Your task to perform on an android device: Open Reddit.com Image 0: 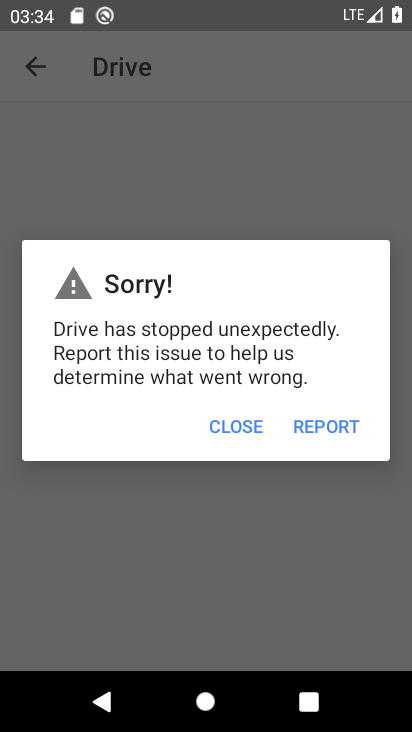
Step 0: press home button
Your task to perform on an android device: Open Reddit.com Image 1: 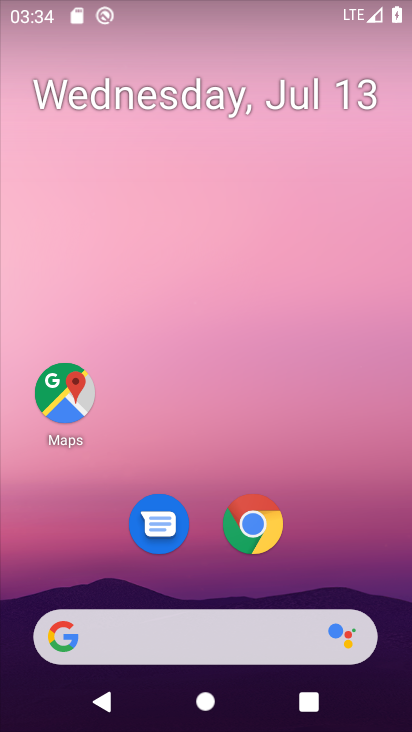
Step 1: click (211, 648)
Your task to perform on an android device: Open Reddit.com Image 2: 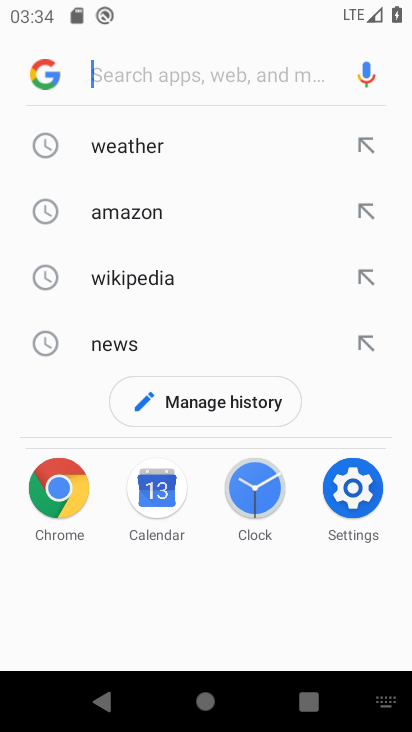
Step 2: type "reddit.com"
Your task to perform on an android device: Open Reddit.com Image 3: 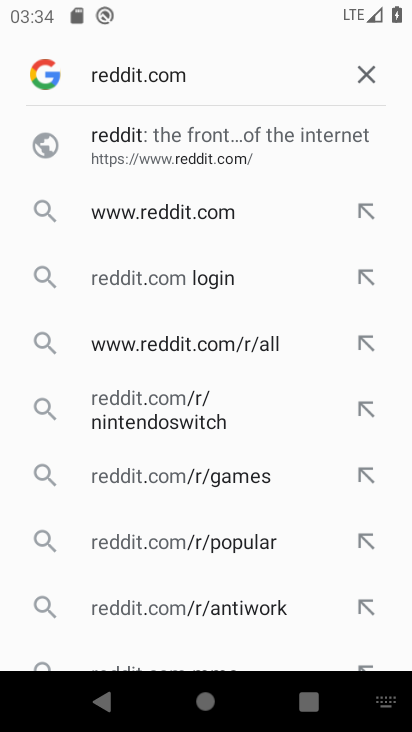
Step 3: click (112, 149)
Your task to perform on an android device: Open Reddit.com Image 4: 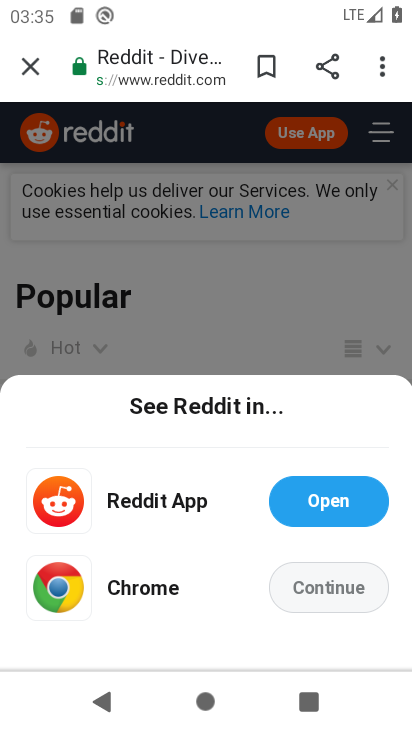
Step 4: click (331, 578)
Your task to perform on an android device: Open Reddit.com Image 5: 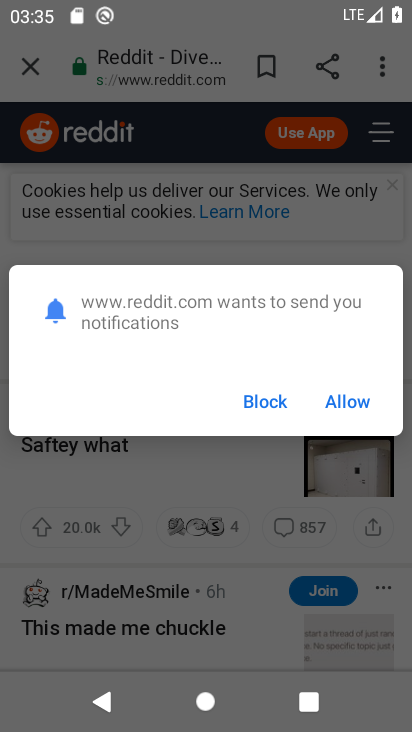
Step 5: click (260, 402)
Your task to perform on an android device: Open Reddit.com Image 6: 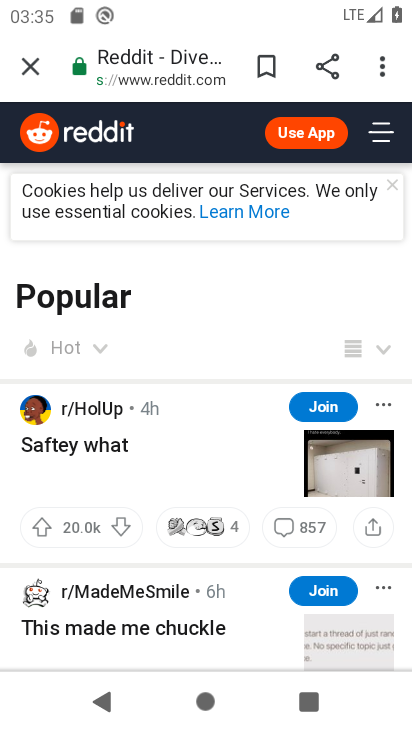
Step 6: task complete